Your task to perform on an android device: Open Google Chrome and click the shortcut for Amazon.com Image 0: 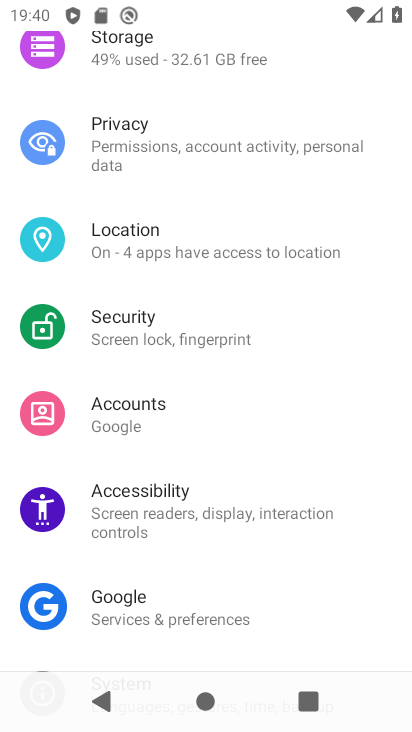
Step 0: press home button
Your task to perform on an android device: Open Google Chrome and click the shortcut for Amazon.com Image 1: 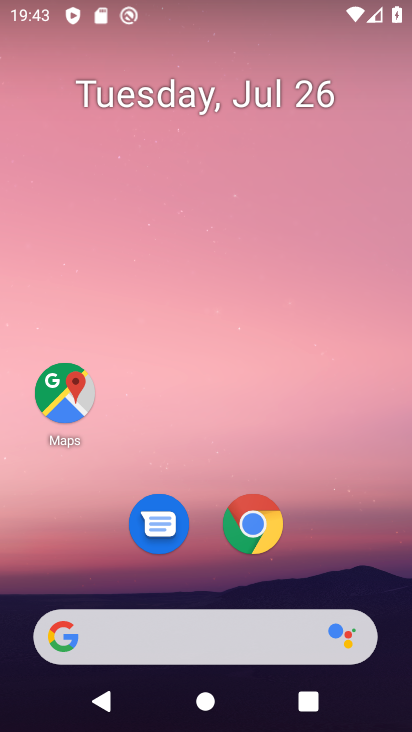
Step 1: click (256, 526)
Your task to perform on an android device: Open Google Chrome and click the shortcut for Amazon.com Image 2: 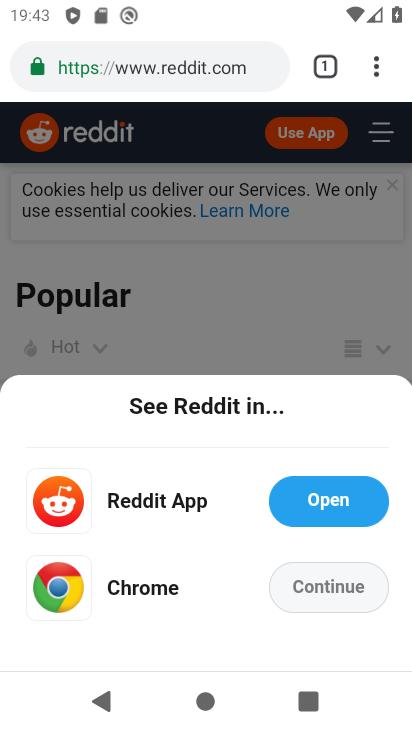
Step 2: drag from (376, 58) to (243, 134)
Your task to perform on an android device: Open Google Chrome and click the shortcut for Amazon.com Image 3: 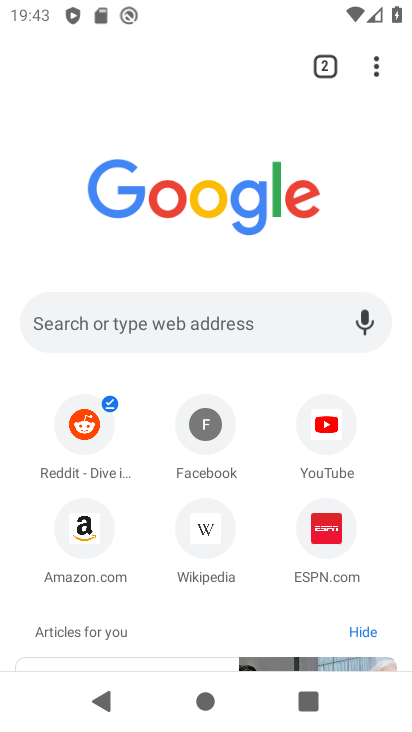
Step 3: click (85, 528)
Your task to perform on an android device: Open Google Chrome and click the shortcut for Amazon.com Image 4: 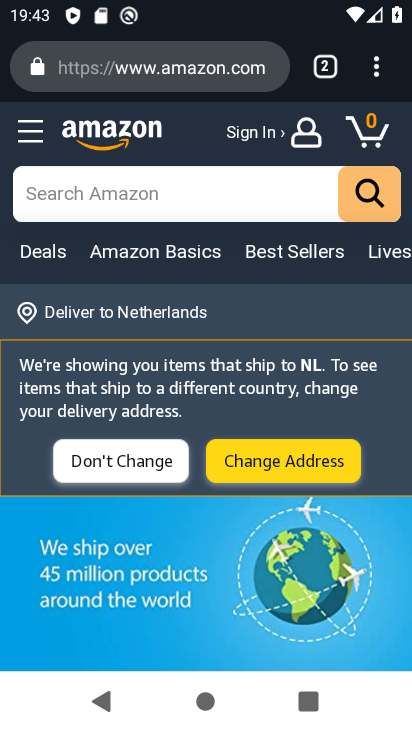
Step 4: task complete